Your task to perform on an android device: What's a good restaurant in Dallas? Image 0: 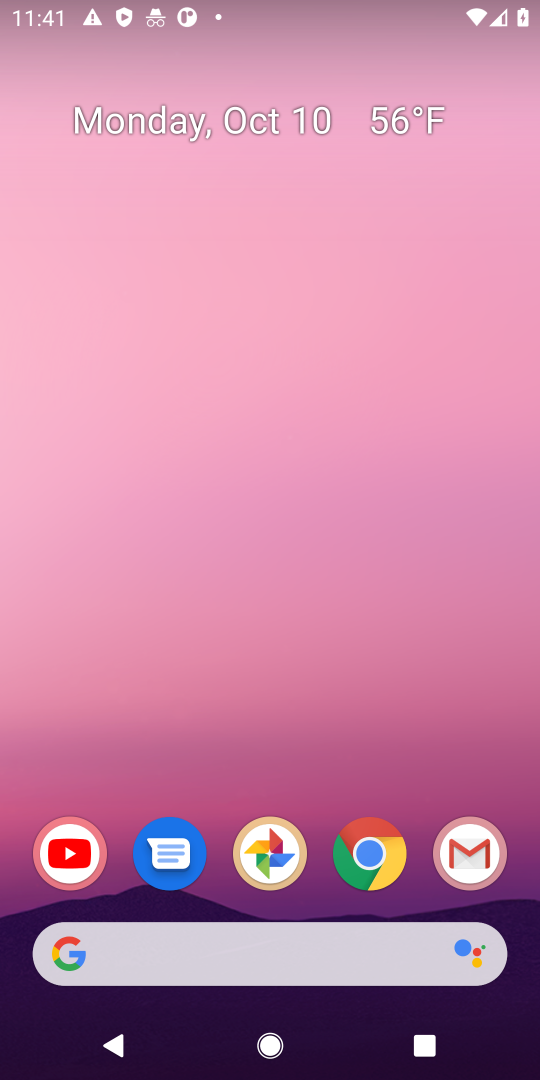
Step 0: drag from (325, 784) to (308, 8)
Your task to perform on an android device: What's a good restaurant in Dallas? Image 1: 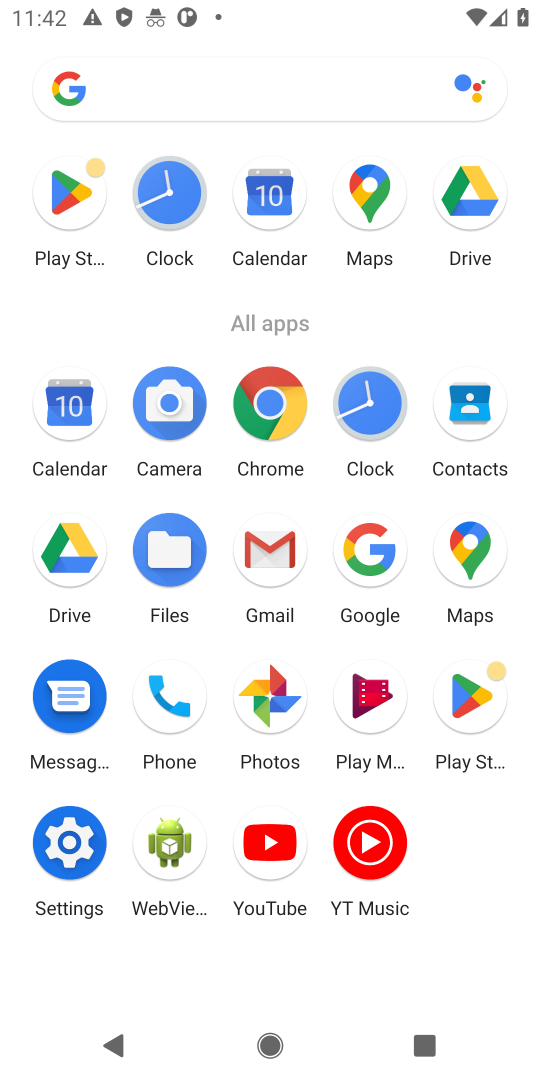
Step 1: click (276, 410)
Your task to perform on an android device: What's a good restaurant in Dallas? Image 2: 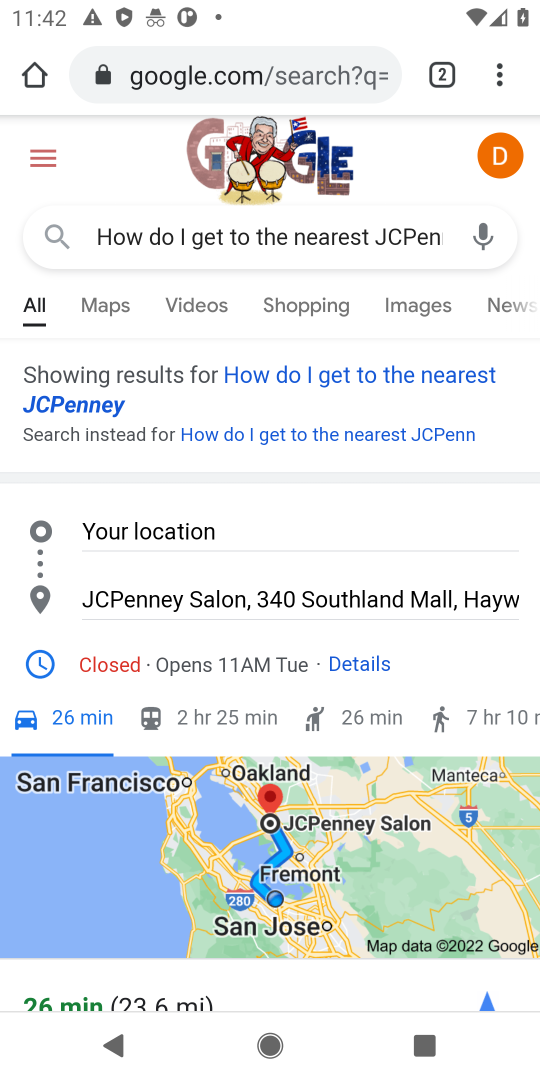
Step 2: click (291, 62)
Your task to perform on an android device: What's a good restaurant in Dallas? Image 3: 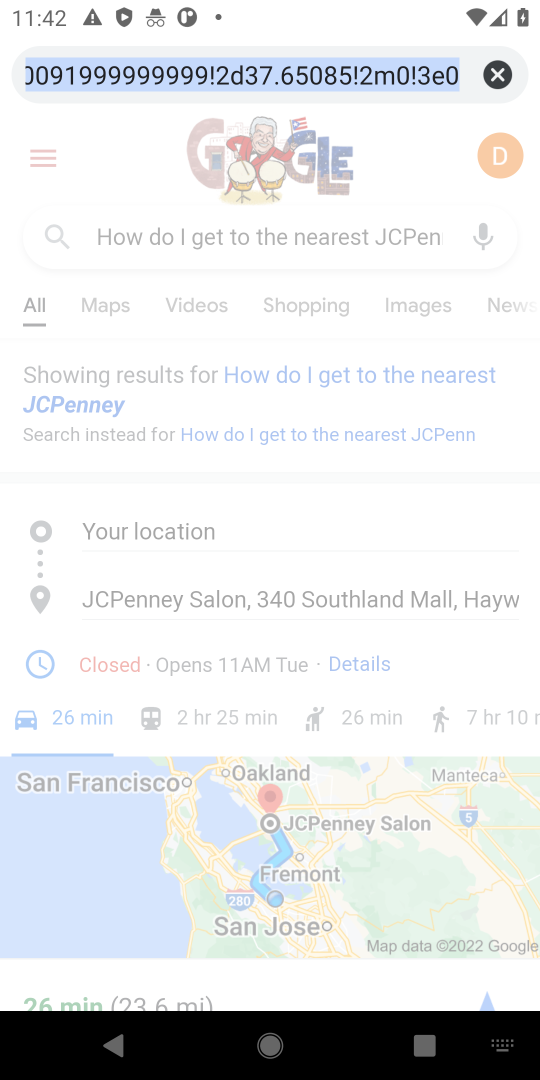
Step 3: click (499, 66)
Your task to perform on an android device: What's a good restaurant in Dallas? Image 4: 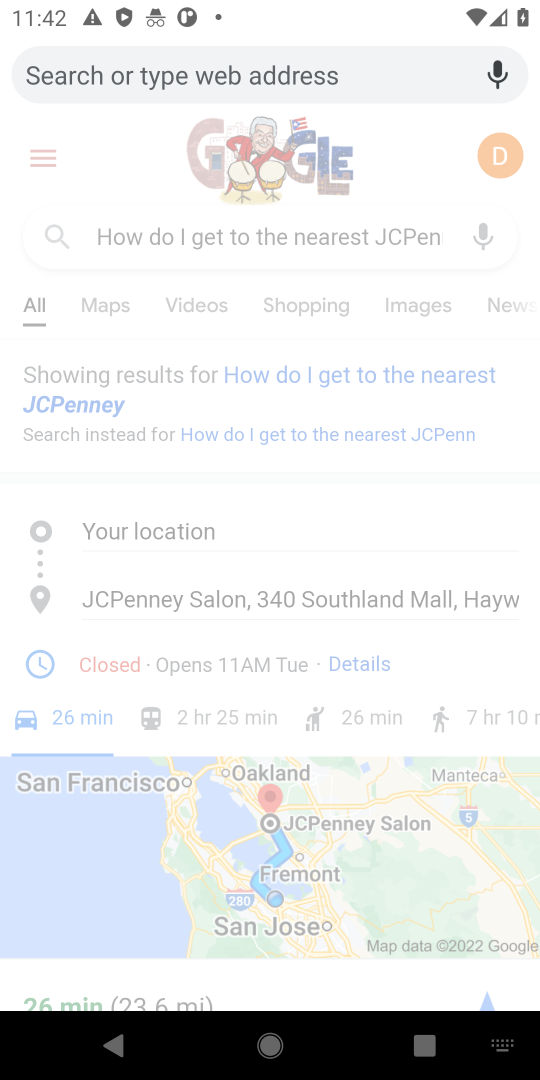
Step 4: type "What's a good restaurant in Dallas?"
Your task to perform on an android device: What's a good restaurant in Dallas? Image 5: 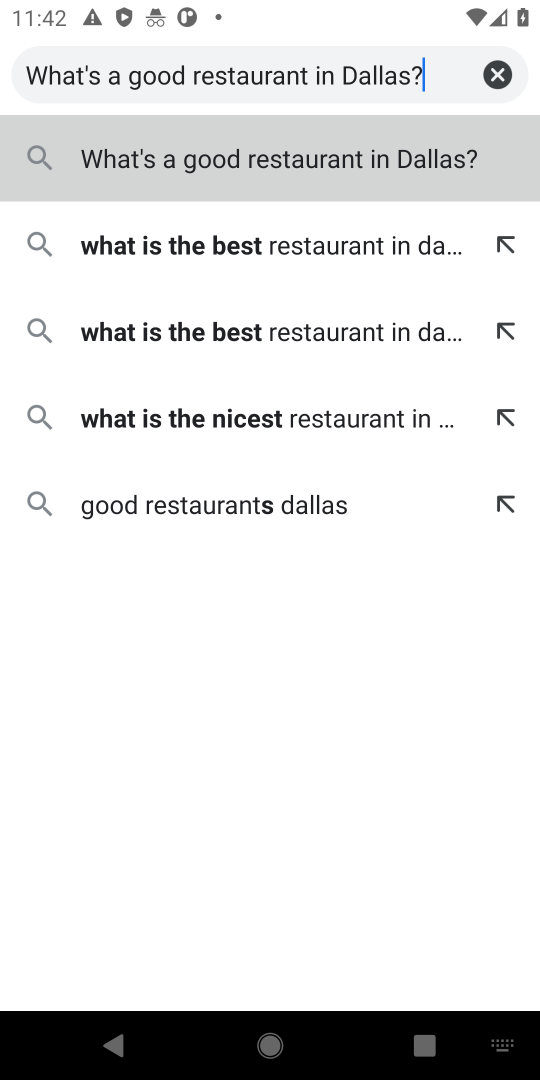
Step 5: click (421, 155)
Your task to perform on an android device: What's a good restaurant in Dallas? Image 6: 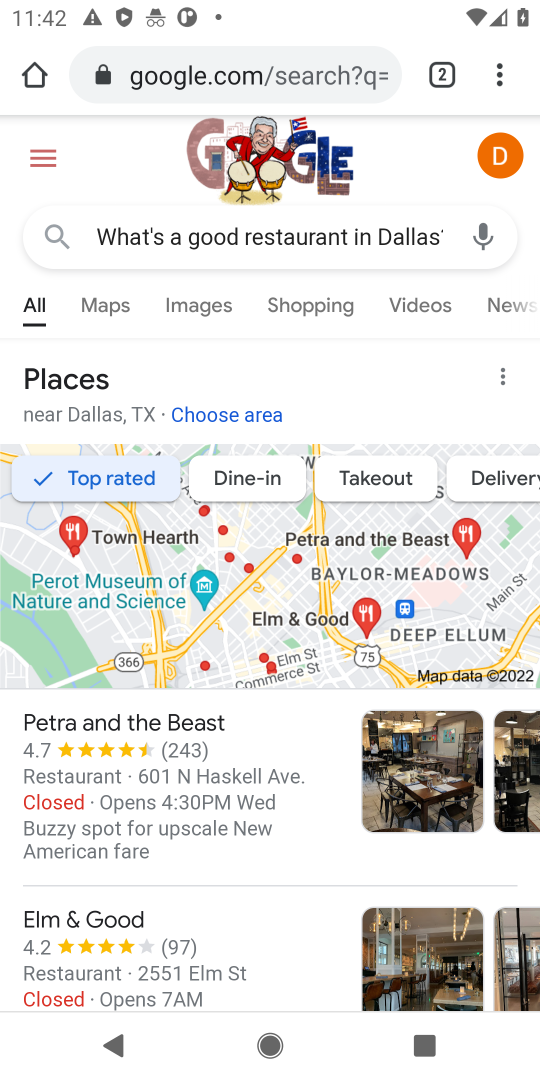
Step 6: task complete